Your task to perform on an android device: Show the shopping cart on costco. Image 0: 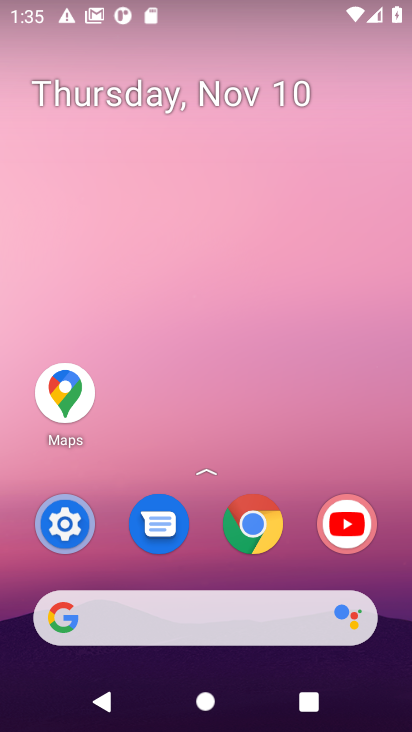
Step 0: click (266, 525)
Your task to perform on an android device: Show the shopping cart on costco. Image 1: 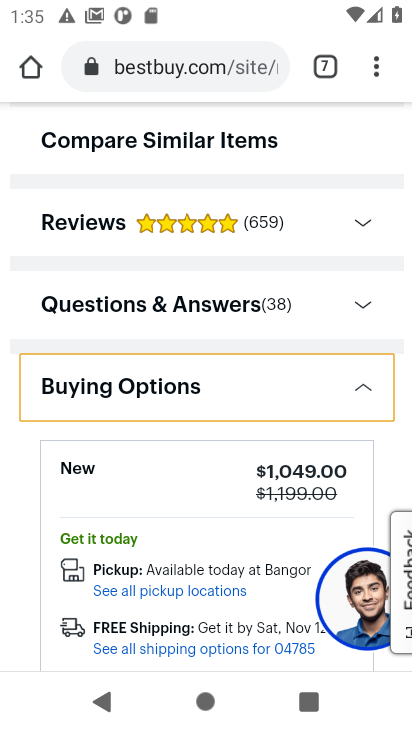
Step 1: click (328, 70)
Your task to perform on an android device: Show the shopping cart on costco. Image 2: 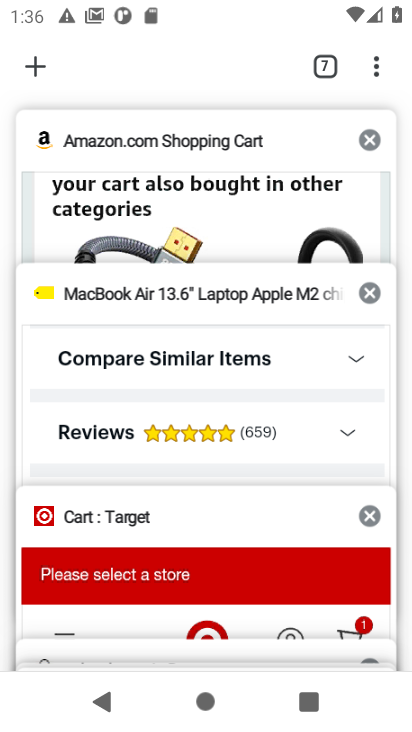
Step 2: drag from (208, 645) to (235, 348)
Your task to perform on an android device: Show the shopping cart on costco. Image 3: 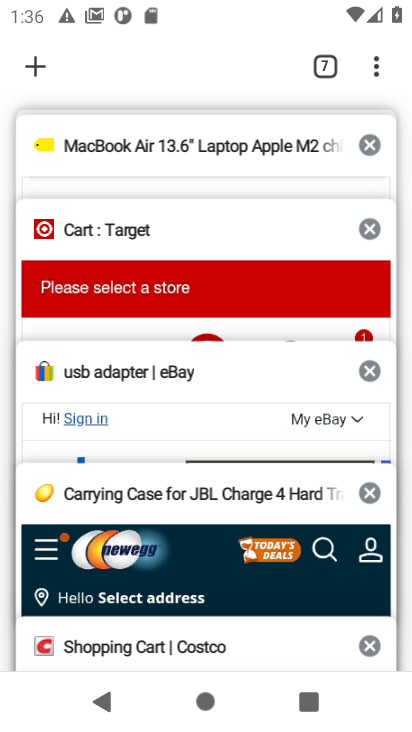
Step 3: click (185, 644)
Your task to perform on an android device: Show the shopping cart on costco. Image 4: 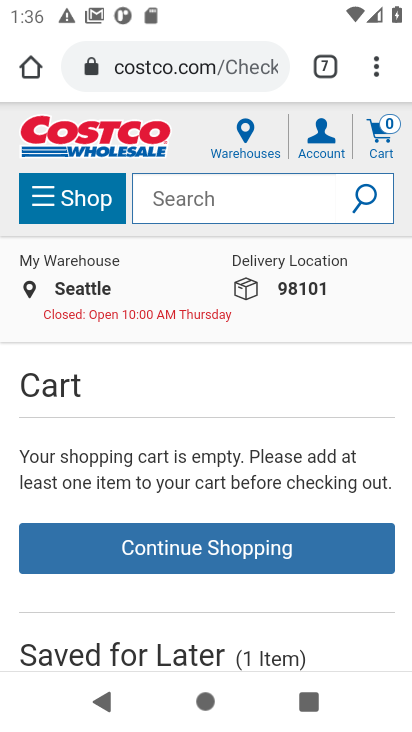
Step 4: task complete